Your task to perform on an android device: open app "Firefox Browser" (install if not already installed) and go to login screen Image 0: 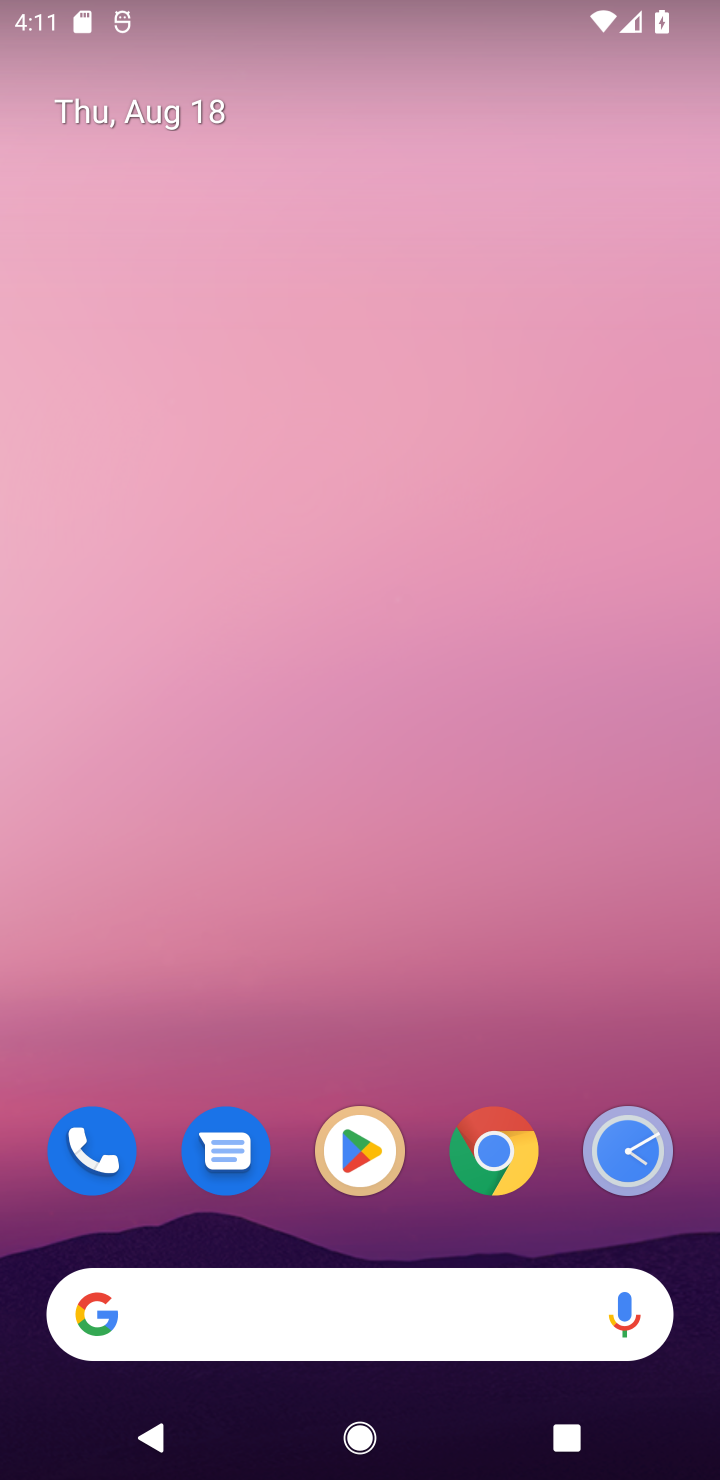
Step 0: click (500, 1161)
Your task to perform on an android device: open app "Firefox Browser" (install if not already installed) and go to login screen Image 1: 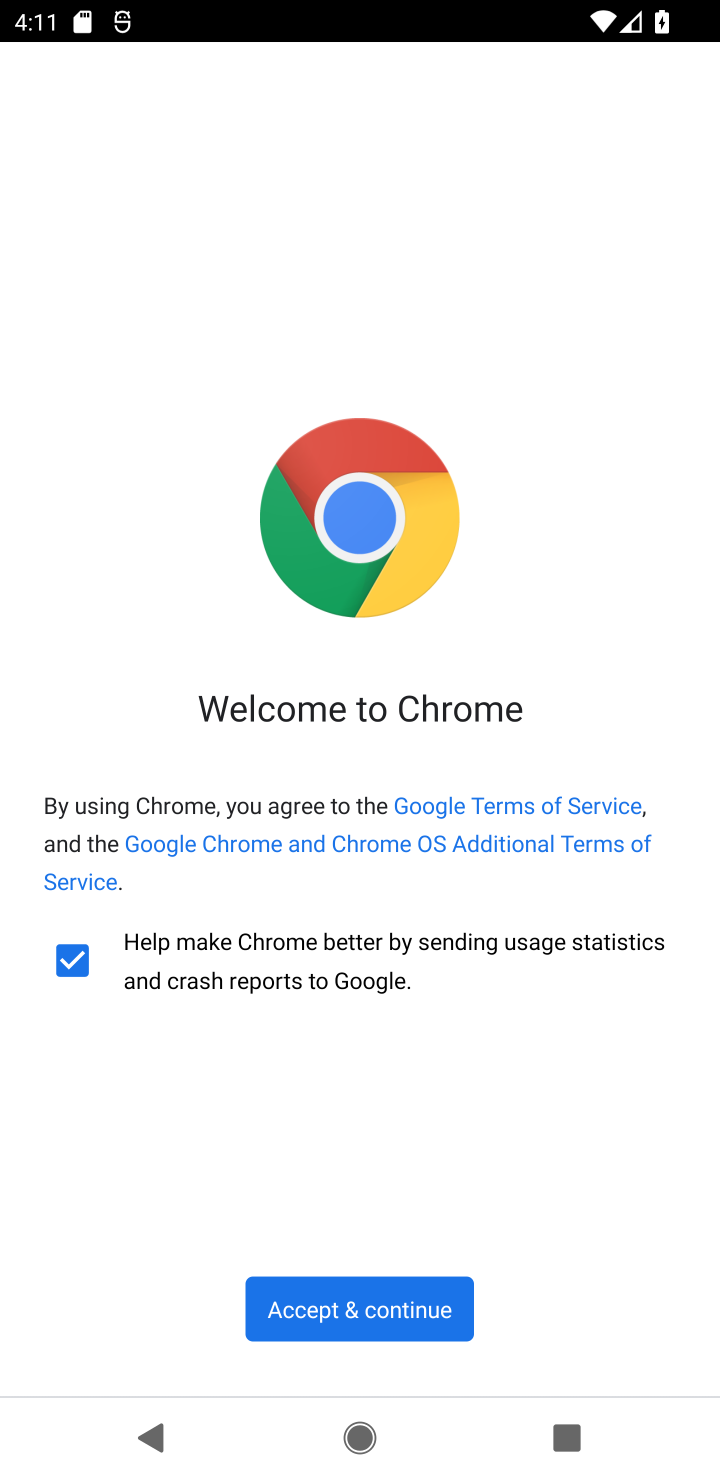
Step 1: press home button
Your task to perform on an android device: open app "Firefox Browser" (install if not already installed) and go to login screen Image 2: 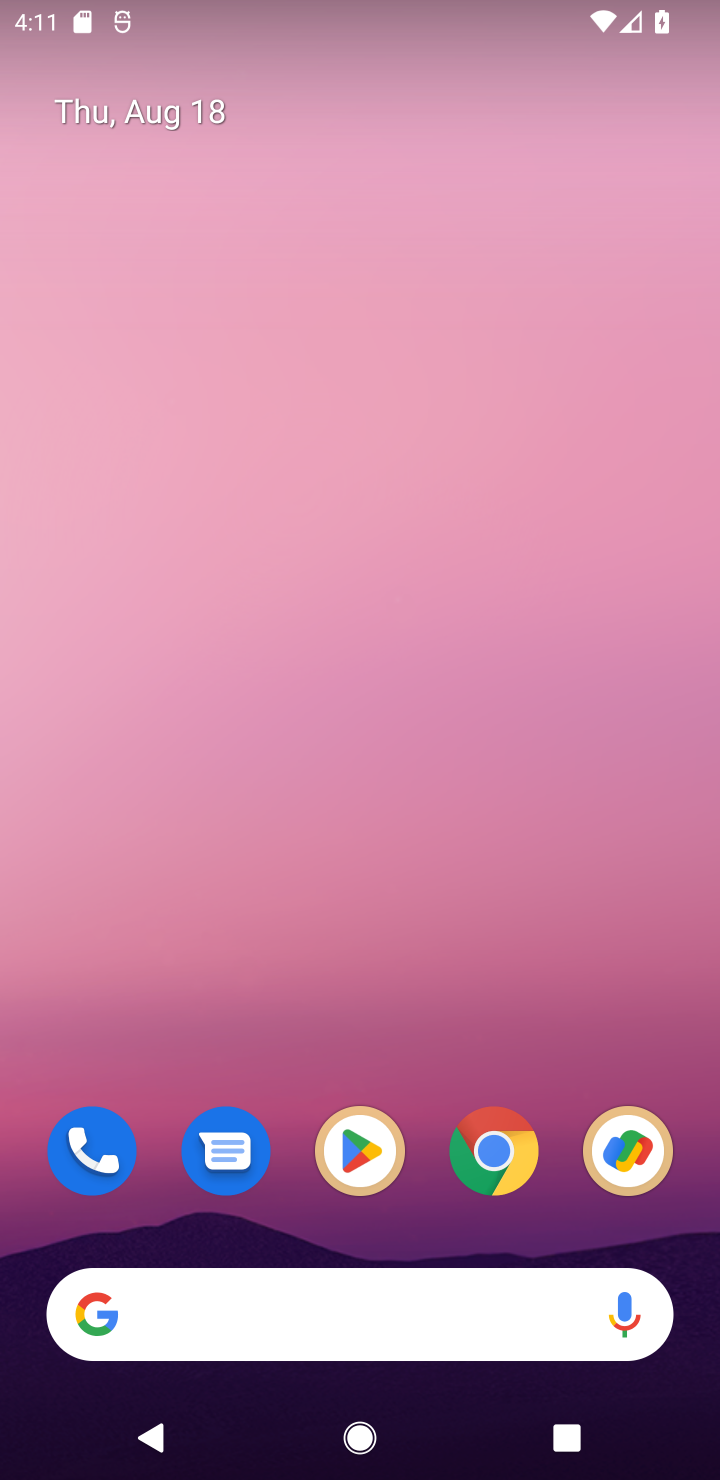
Step 2: click (383, 1157)
Your task to perform on an android device: open app "Firefox Browser" (install if not already installed) and go to login screen Image 3: 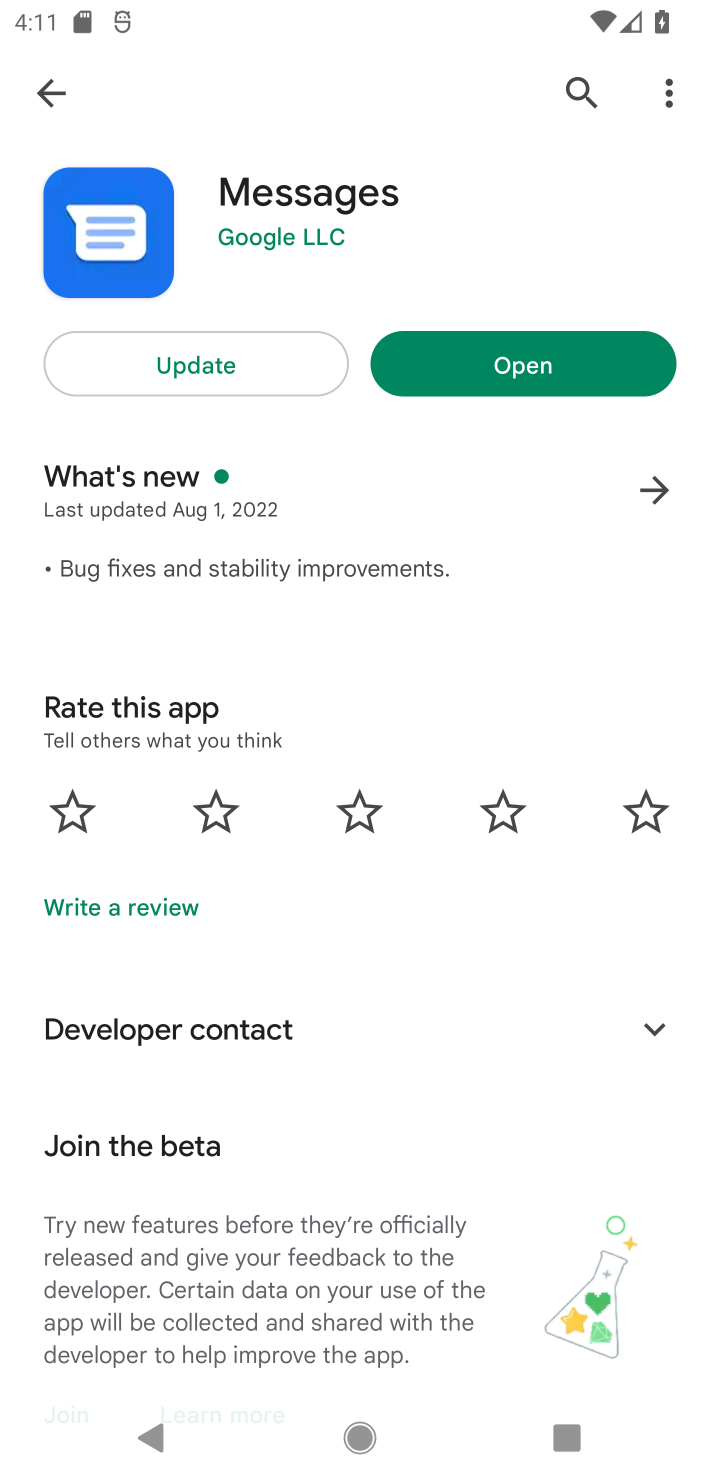
Step 3: click (558, 118)
Your task to perform on an android device: open app "Firefox Browser" (install if not already installed) and go to login screen Image 4: 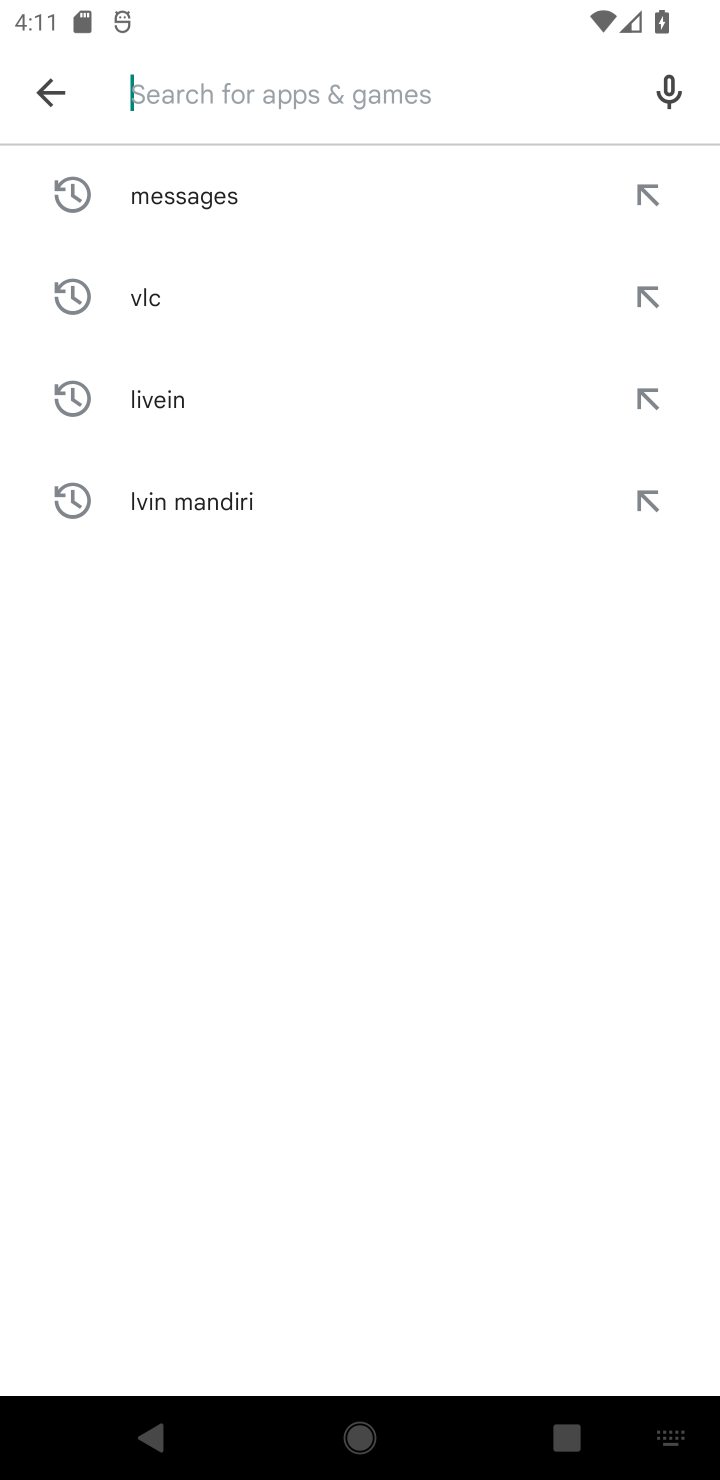
Step 4: type "FIREFOX"
Your task to perform on an android device: open app "Firefox Browser" (install if not already installed) and go to login screen Image 5: 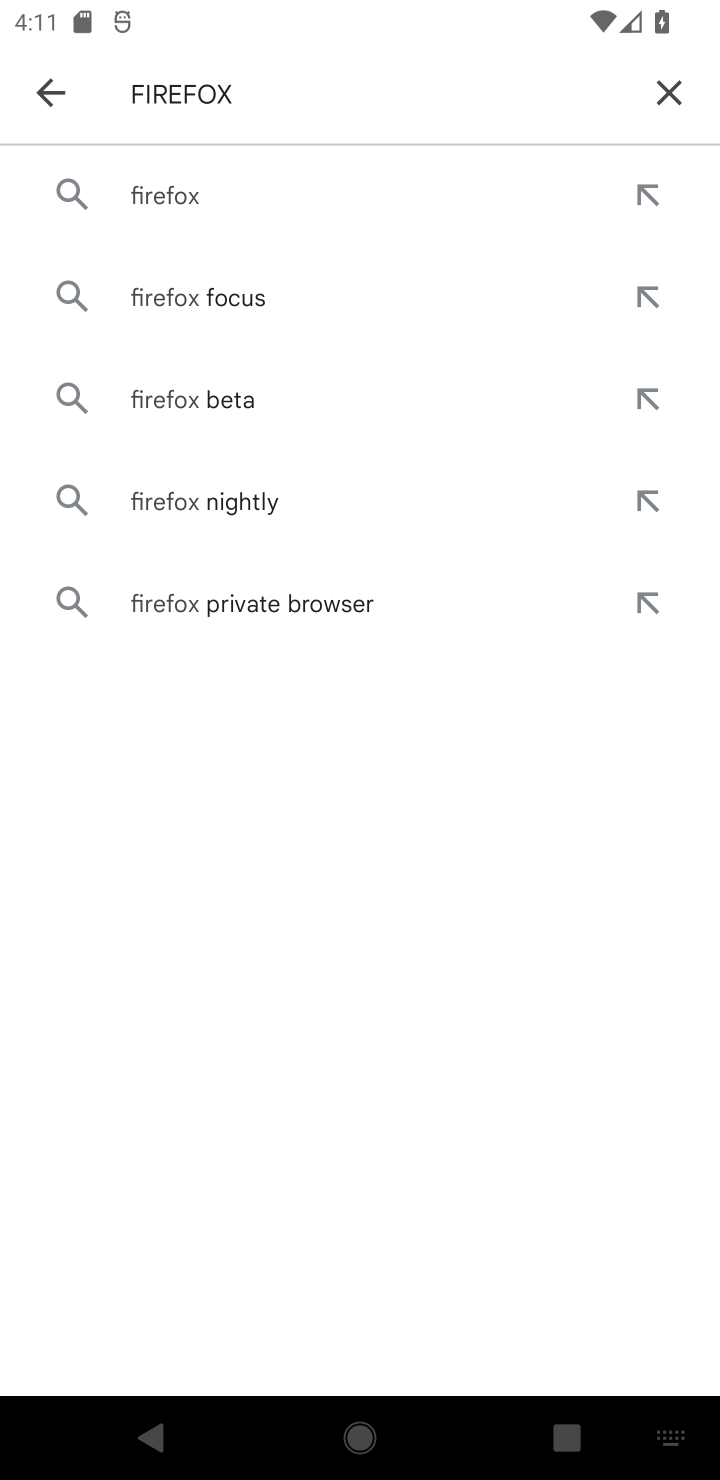
Step 5: click (232, 227)
Your task to perform on an android device: open app "Firefox Browser" (install if not already installed) and go to login screen Image 6: 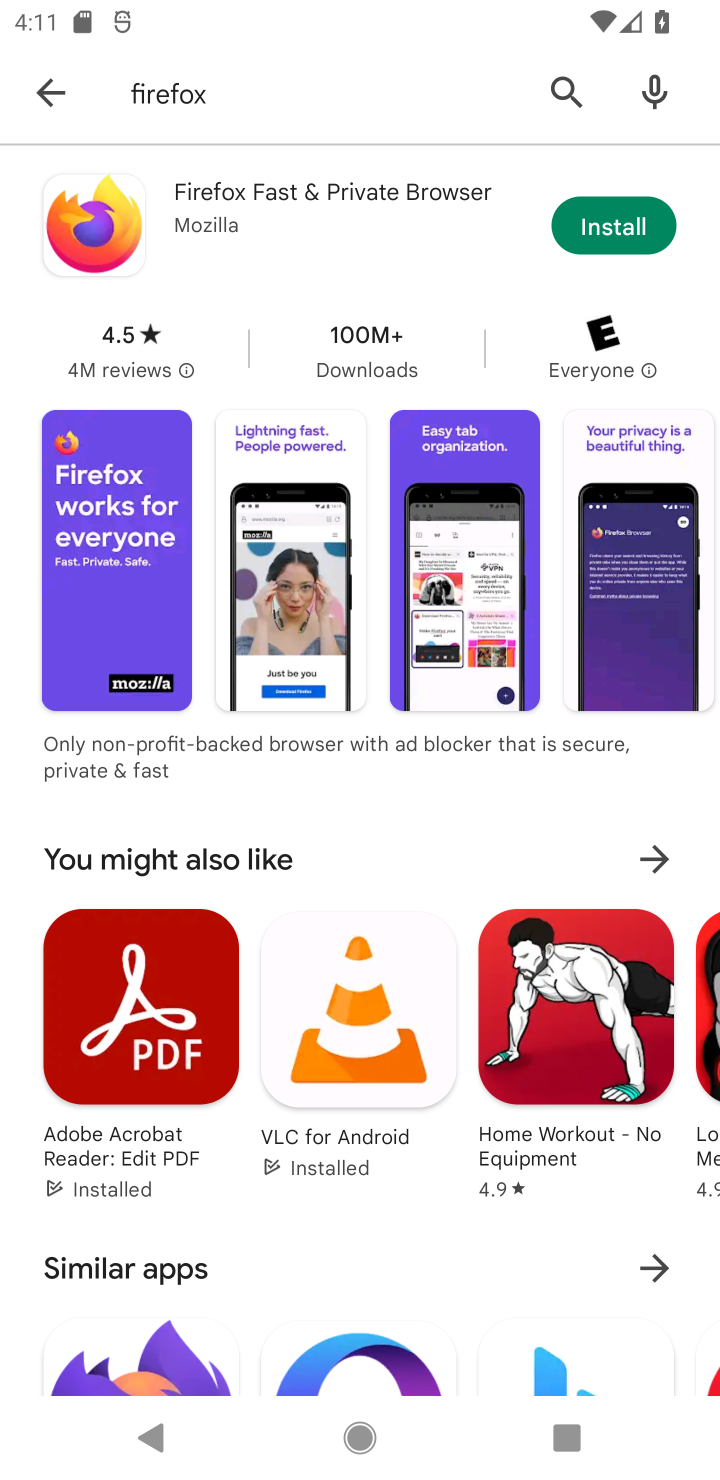
Step 6: click (567, 238)
Your task to perform on an android device: open app "Firefox Browser" (install if not already installed) and go to login screen Image 7: 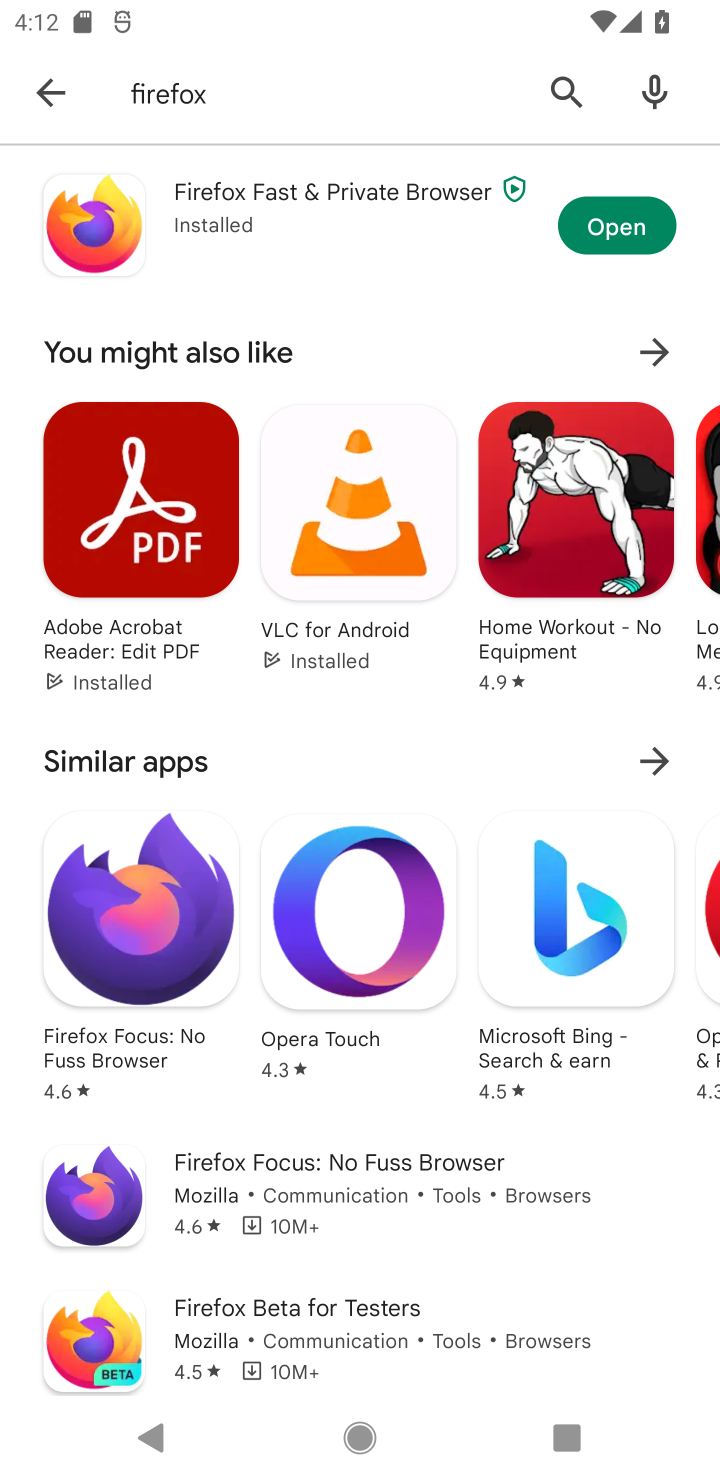
Step 7: click (567, 238)
Your task to perform on an android device: open app "Firefox Browser" (install if not already installed) and go to login screen Image 8: 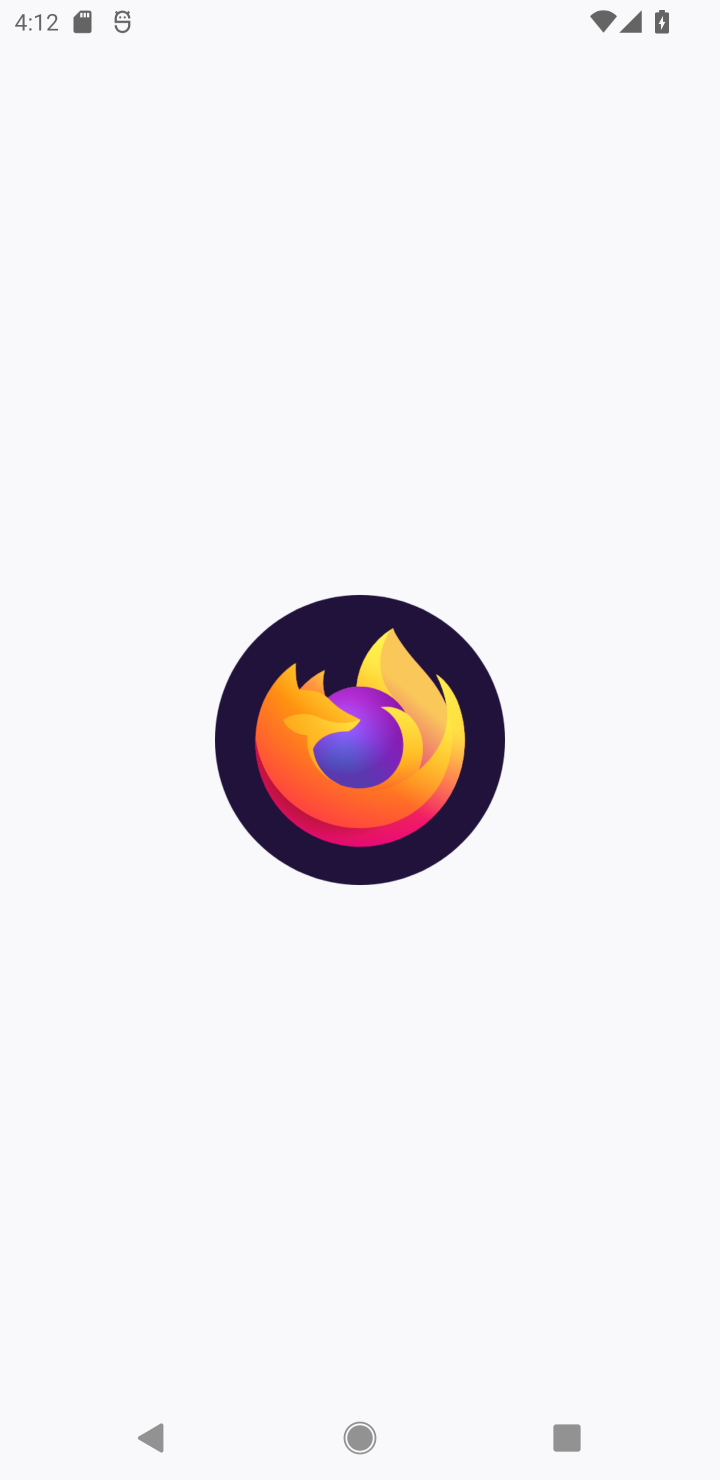
Step 8: task complete